Your task to perform on an android device: change alarm snooze length Image 0: 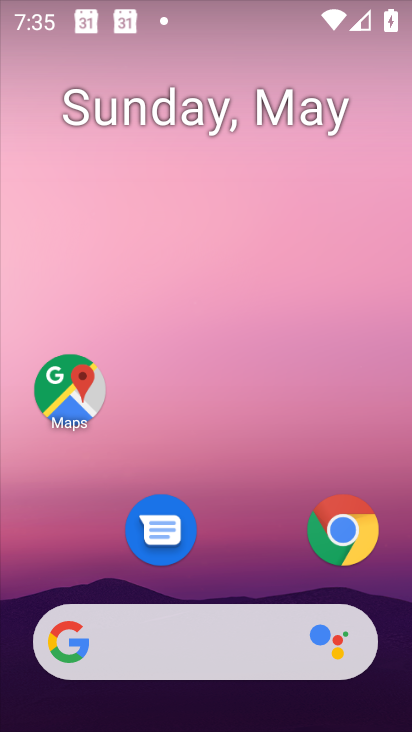
Step 0: drag from (167, 581) to (263, 19)
Your task to perform on an android device: change alarm snooze length Image 1: 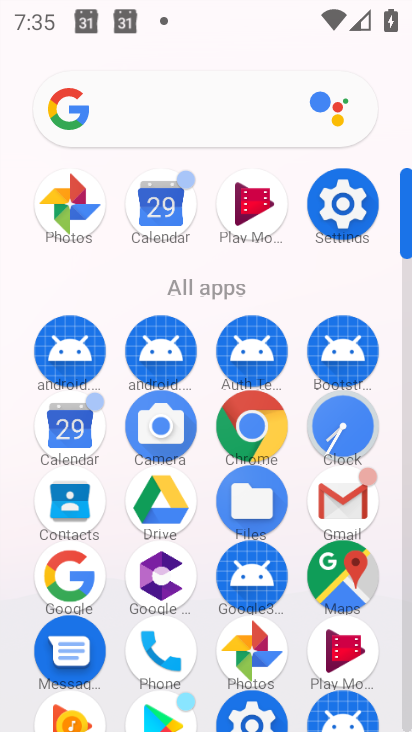
Step 1: click (340, 435)
Your task to perform on an android device: change alarm snooze length Image 2: 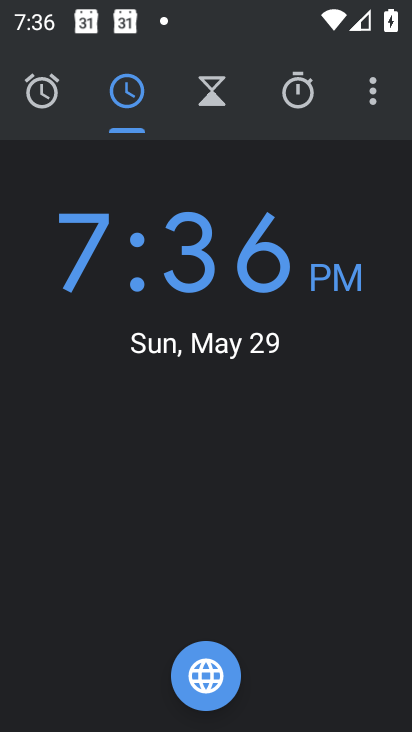
Step 2: click (379, 93)
Your task to perform on an android device: change alarm snooze length Image 3: 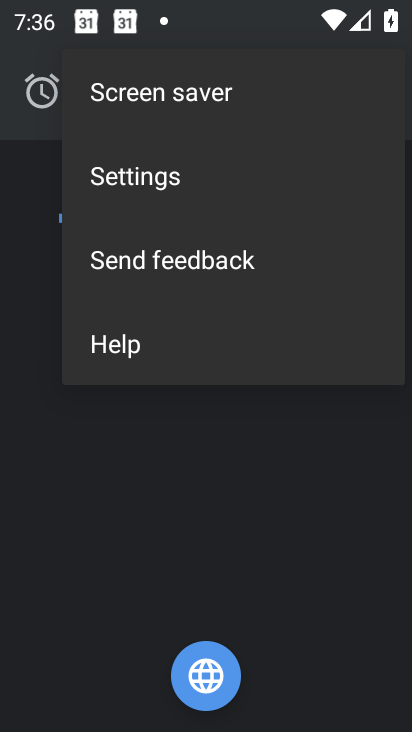
Step 3: click (117, 183)
Your task to perform on an android device: change alarm snooze length Image 4: 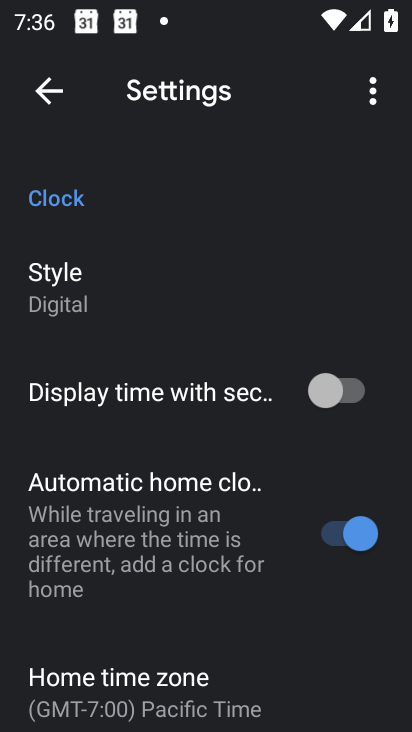
Step 4: drag from (186, 638) to (146, 193)
Your task to perform on an android device: change alarm snooze length Image 5: 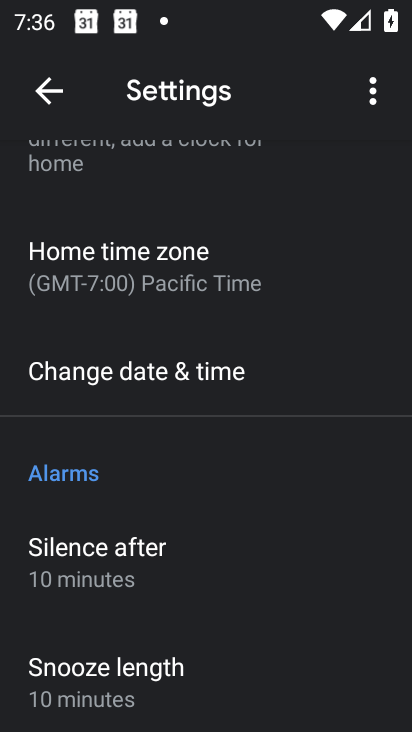
Step 5: click (172, 657)
Your task to perform on an android device: change alarm snooze length Image 6: 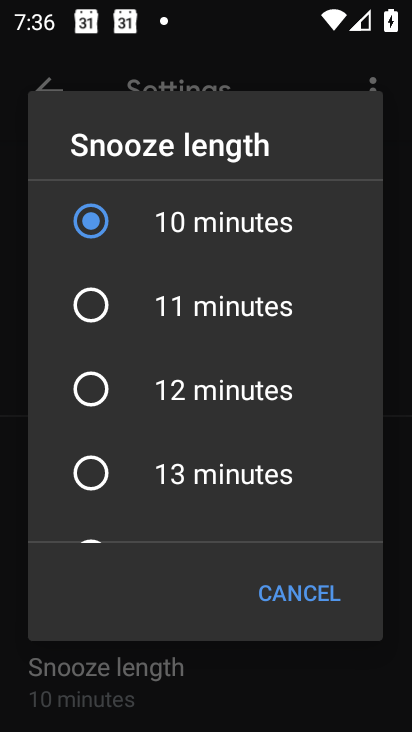
Step 6: click (102, 292)
Your task to perform on an android device: change alarm snooze length Image 7: 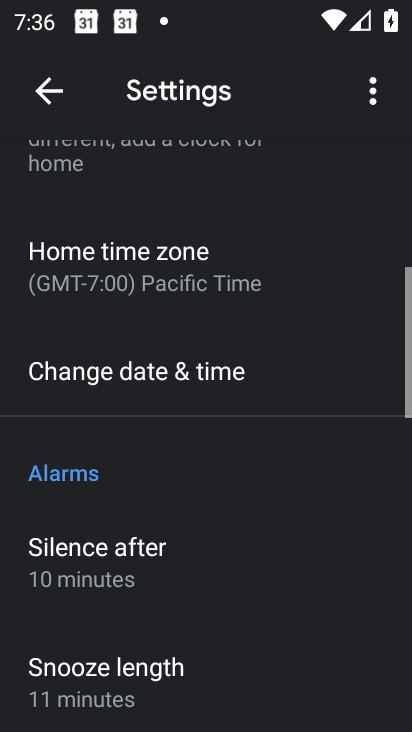
Step 7: task complete